Your task to perform on an android device: Search for "razer naga" on target.com, select the first entry, and add it to the cart. Image 0: 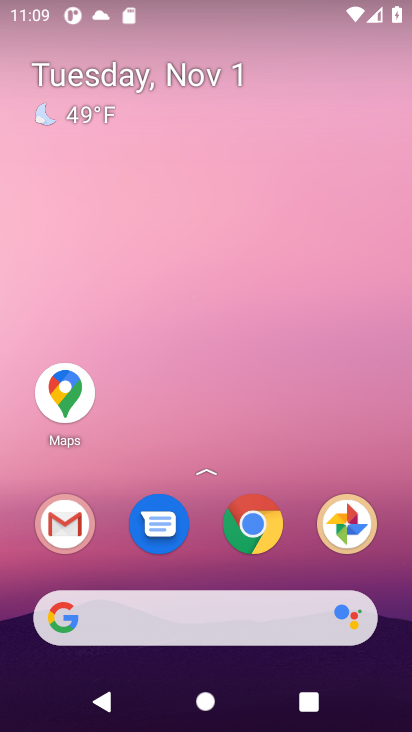
Step 0: press home button
Your task to perform on an android device: Search for "razer naga" on target.com, select the first entry, and add it to the cart. Image 1: 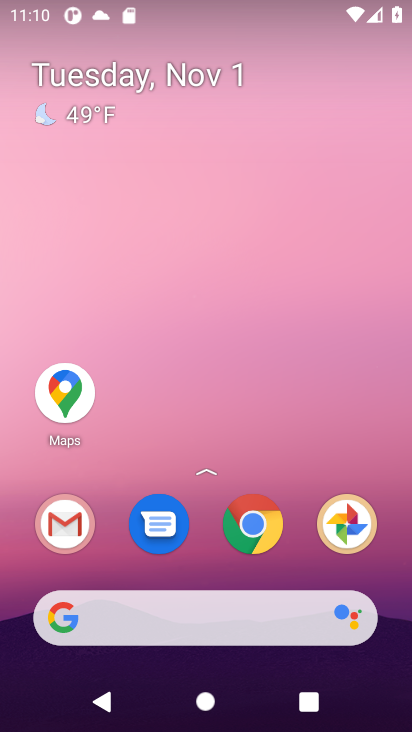
Step 1: click (104, 610)
Your task to perform on an android device: Search for "razer naga" on target.com, select the first entry, and add it to the cart. Image 2: 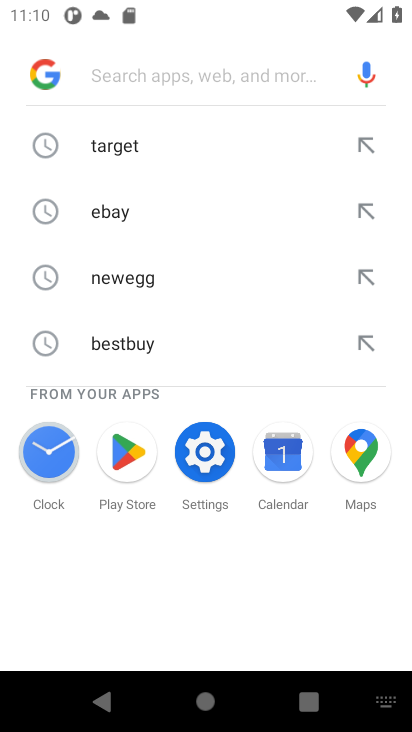
Step 2: type "target.com"
Your task to perform on an android device: Search for "razer naga" on target.com, select the first entry, and add it to the cart. Image 3: 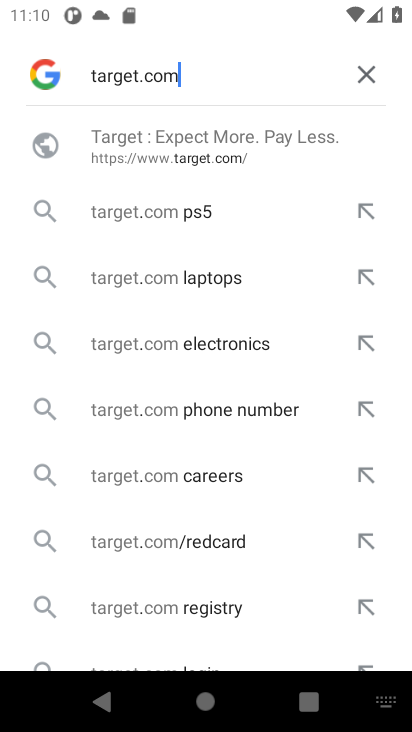
Step 3: press enter
Your task to perform on an android device: Search for "razer naga" on target.com, select the first entry, and add it to the cart. Image 4: 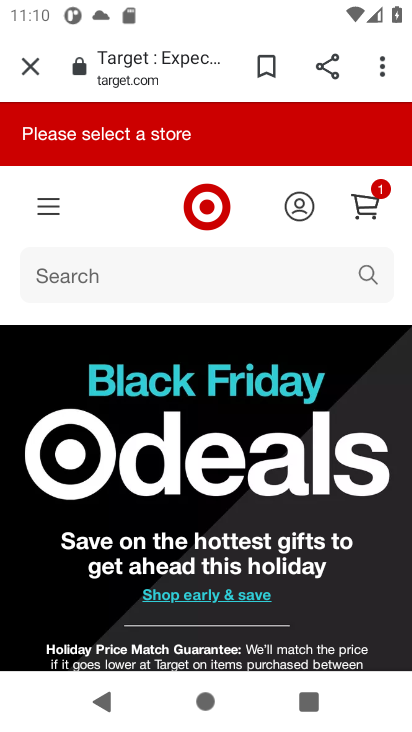
Step 4: click (104, 269)
Your task to perform on an android device: Search for "razer naga" on target.com, select the first entry, and add it to the cart. Image 5: 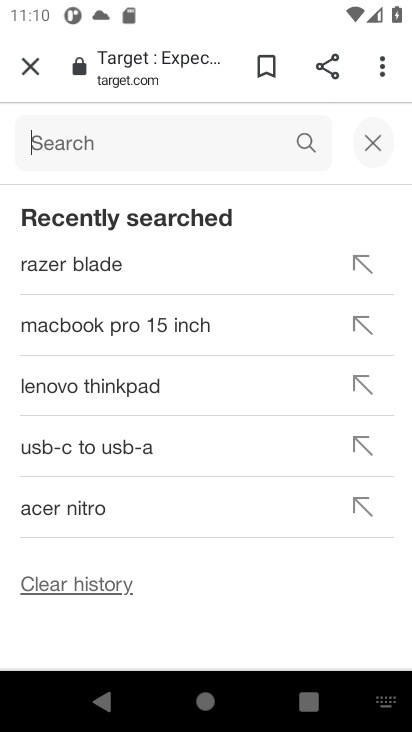
Step 5: type "razer naga"
Your task to perform on an android device: Search for "razer naga" on target.com, select the first entry, and add it to the cart. Image 6: 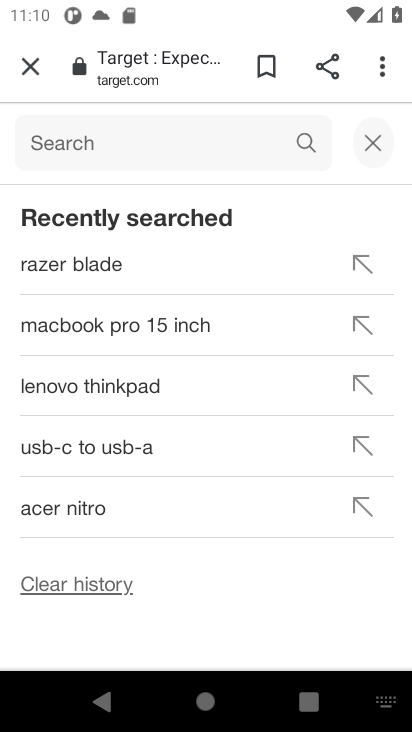
Step 6: press enter
Your task to perform on an android device: Search for "razer naga" on target.com, select the first entry, and add it to the cart. Image 7: 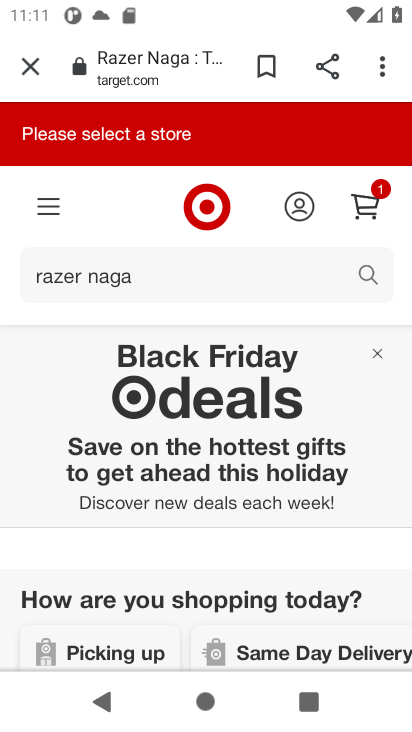
Step 7: task complete